Your task to perform on an android device: Open ESPN.com Image 0: 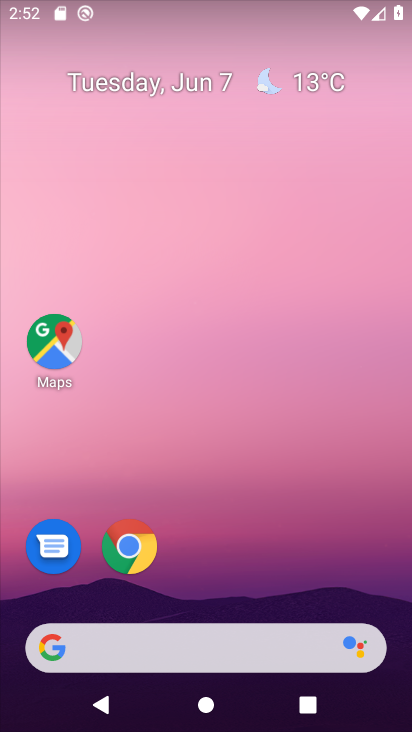
Step 0: drag from (361, 577) to (400, 188)
Your task to perform on an android device: Open ESPN.com Image 1: 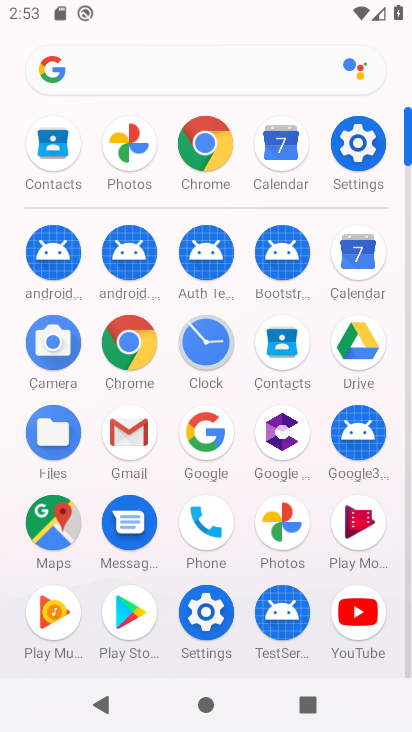
Step 1: click (133, 361)
Your task to perform on an android device: Open ESPN.com Image 2: 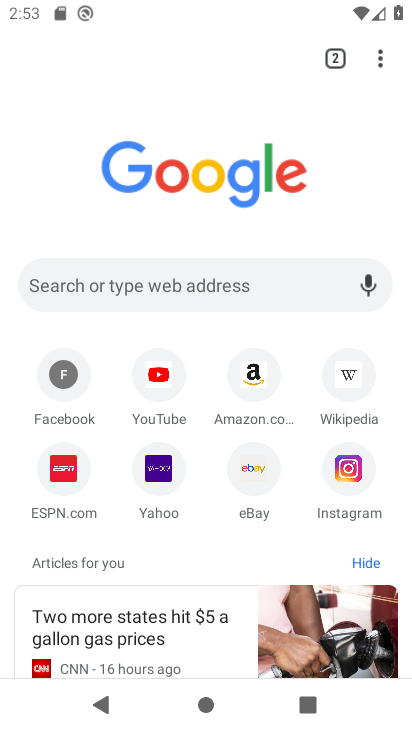
Step 2: click (91, 486)
Your task to perform on an android device: Open ESPN.com Image 3: 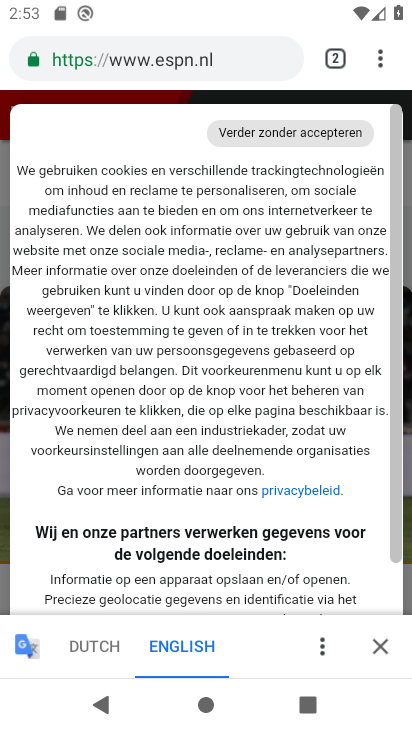
Step 3: task complete